Your task to perform on an android device: all mails in gmail Image 0: 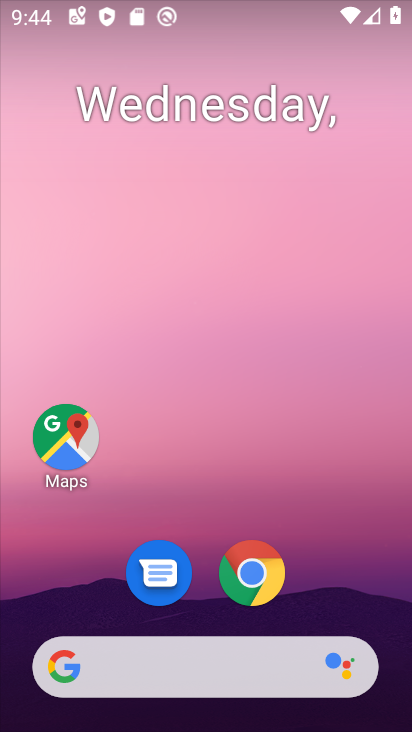
Step 0: drag from (371, 612) to (374, 299)
Your task to perform on an android device: all mails in gmail Image 1: 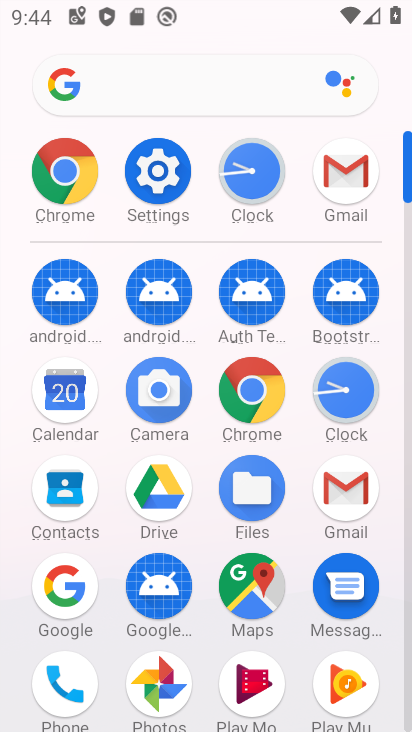
Step 1: click (355, 161)
Your task to perform on an android device: all mails in gmail Image 2: 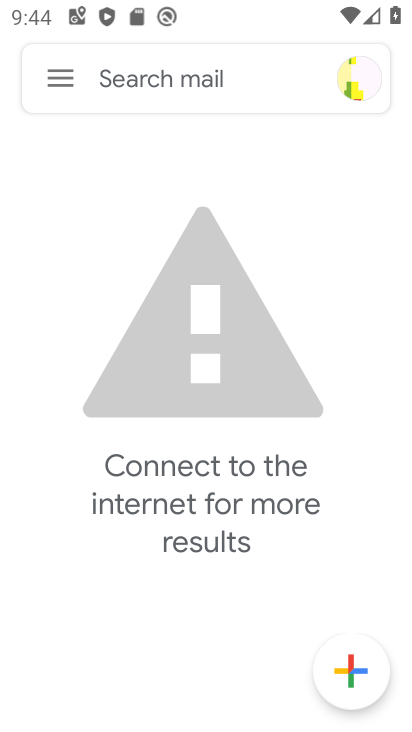
Step 2: click (51, 78)
Your task to perform on an android device: all mails in gmail Image 3: 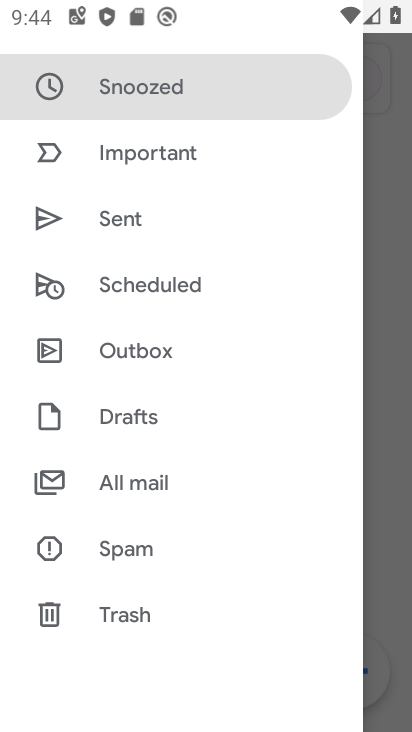
Step 3: click (121, 481)
Your task to perform on an android device: all mails in gmail Image 4: 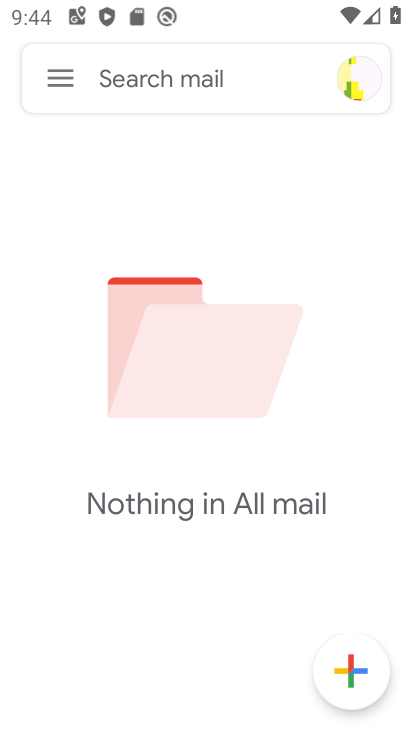
Step 4: task complete